Your task to perform on an android device: Search for the best running shoes on Nike. Image 0: 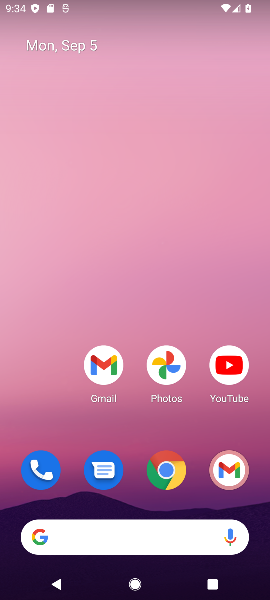
Step 0: click (122, 534)
Your task to perform on an android device: Search for the best running shoes on Nike. Image 1: 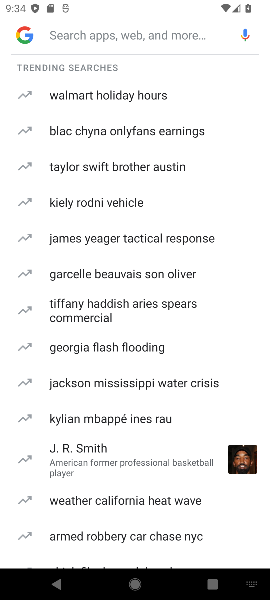
Step 1: type "nike"
Your task to perform on an android device: Search for the best running shoes on Nike. Image 2: 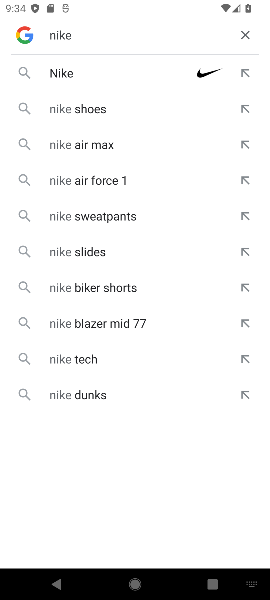
Step 2: click (74, 69)
Your task to perform on an android device: Search for the best running shoes on Nike. Image 3: 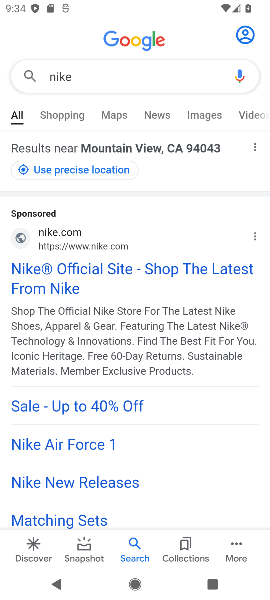
Step 3: click (28, 264)
Your task to perform on an android device: Search for the best running shoes on Nike. Image 4: 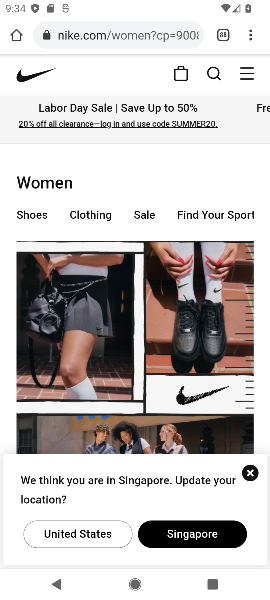
Step 4: click (213, 72)
Your task to perform on an android device: Search for the best running shoes on Nike. Image 5: 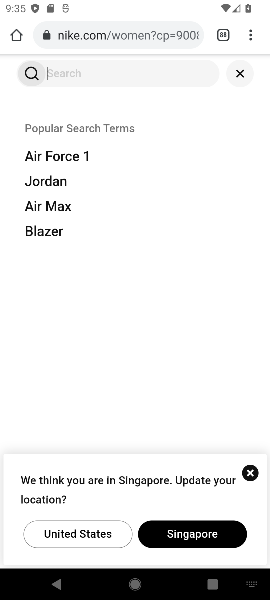
Step 5: type "best running shoes"
Your task to perform on an android device: Search for the best running shoes on Nike. Image 6: 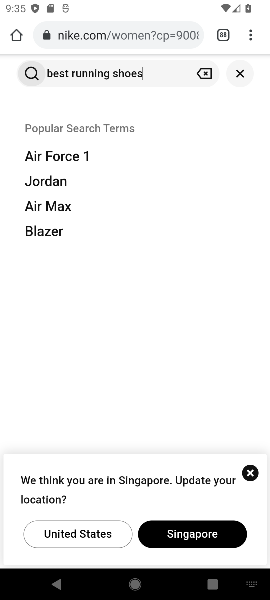
Step 6: click (29, 69)
Your task to perform on an android device: Search for the best running shoes on Nike. Image 7: 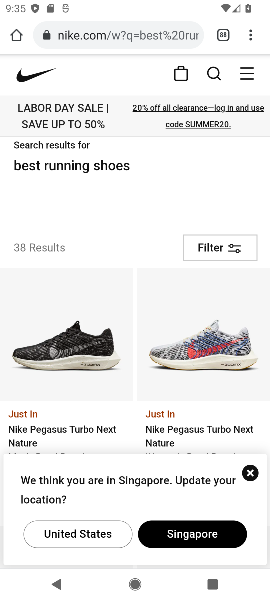
Step 7: task complete